Your task to perform on an android device: Go to notification settings Image 0: 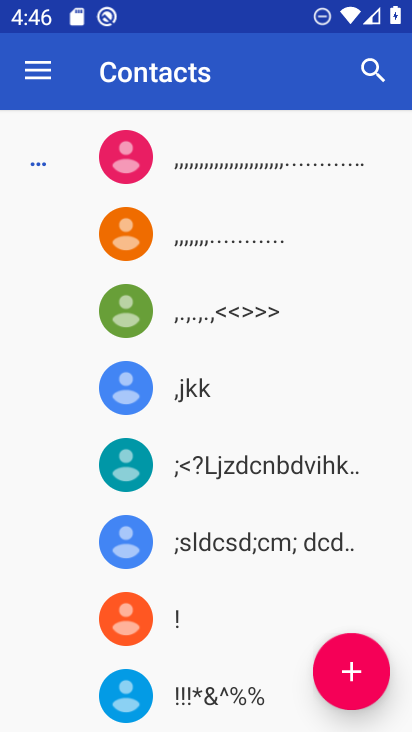
Step 0: press home button
Your task to perform on an android device: Go to notification settings Image 1: 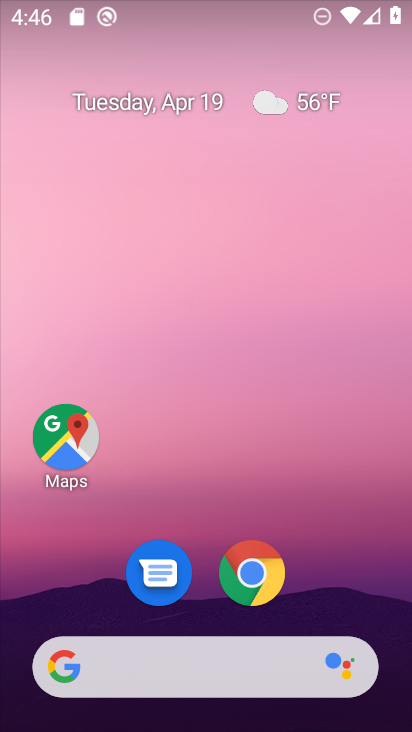
Step 1: drag from (363, 541) to (376, 5)
Your task to perform on an android device: Go to notification settings Image 2: 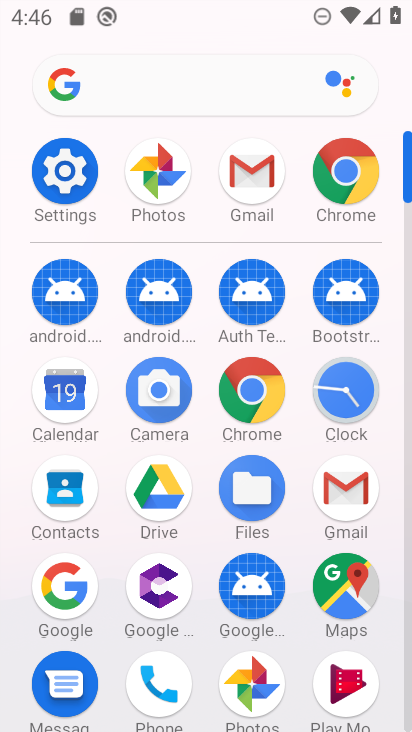
Step 2: click (68, 175)
Your task to perform on an android device: Go to notification settings Image 3: 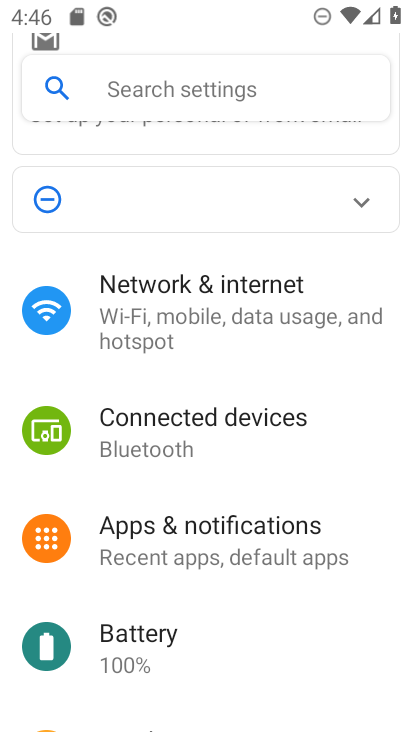
Step 3: click (271, 528)
Your task to perform on an android device: Go to notification settings Image 4: 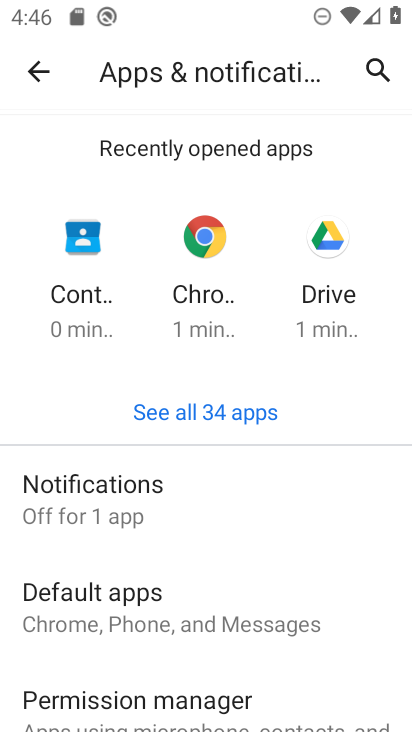
Step 4: task complete